Your task to perform on an android device: open chrome and create a bookmark for the current page Image 0: 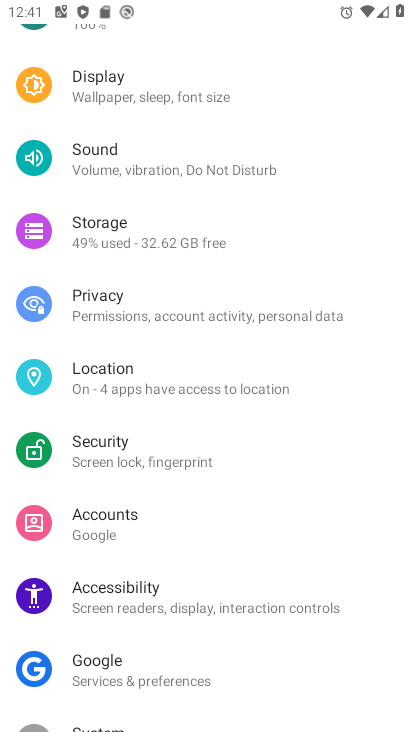
Step 0: press back button
Your task to perform on an android device: open chrome and create a bookmark for the current page Image 1: 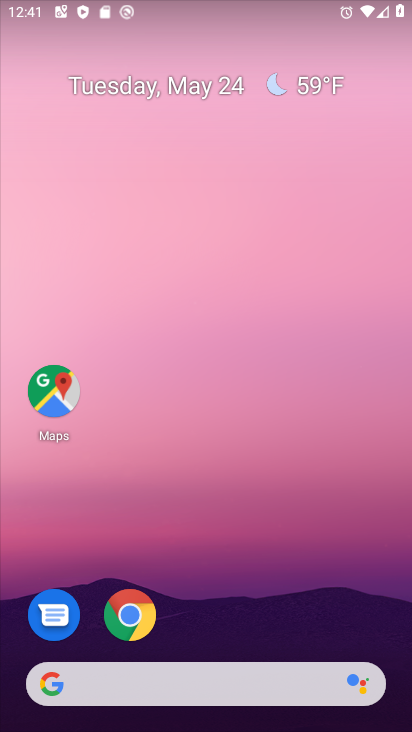
Step 1: drag from (280, 607) to (205, 31)
Your task to perform on an android device: open chrome and create a bookmark for the current page Image 2: 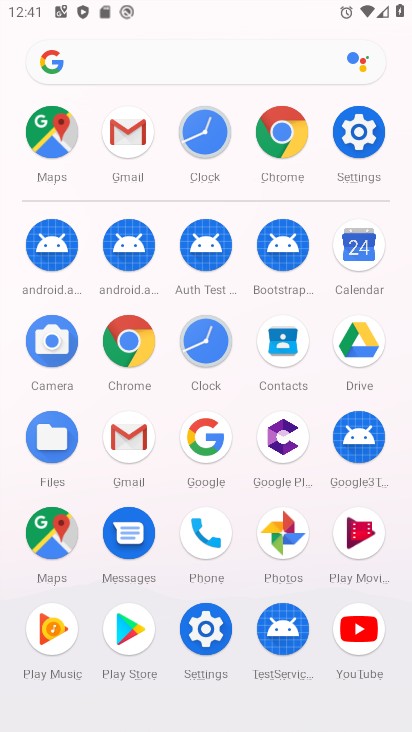
Step 2: click (122, 337)
Your task to perform on an android device: open chrome and create a bookmark for the current page Image 3: 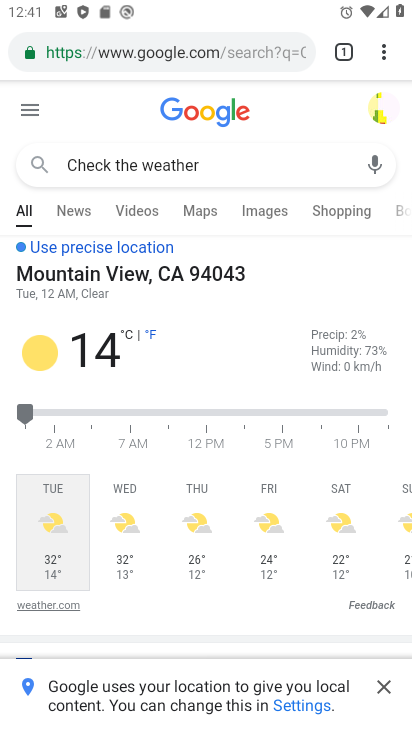
Step 3: task complete